Your task to perform on an android device: Open sound settings Image 0: 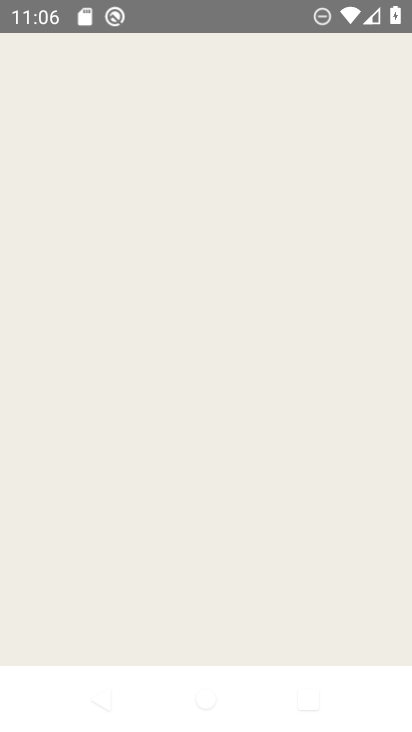
Step 0: press home button
Your task to perform on an android device: Open sound settings Image 1: 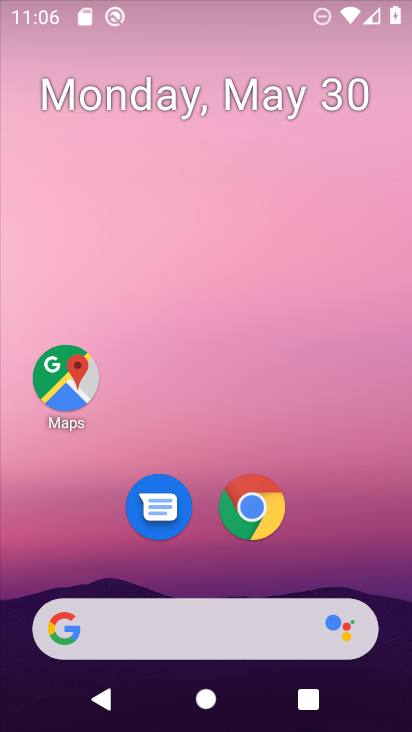
Step 1: drag from (387, 622) to (276, 72)
Your task to perform on an android device: Open sound settings Image 2: 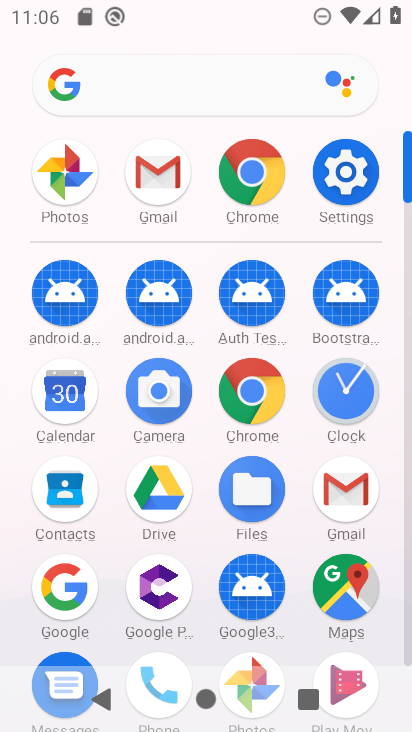
Step 2: click (364, 175)
Your task to perform on an android device: Open sound settings Image 3: 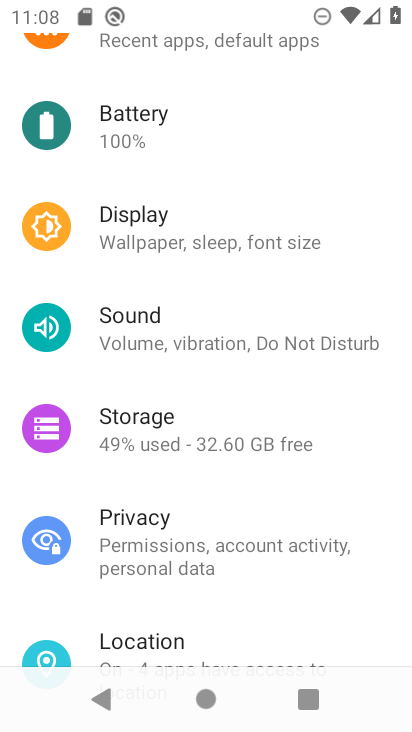
Step 3: click (135, 339)
Your task to perform on an android device: Open sound settings Image 4: 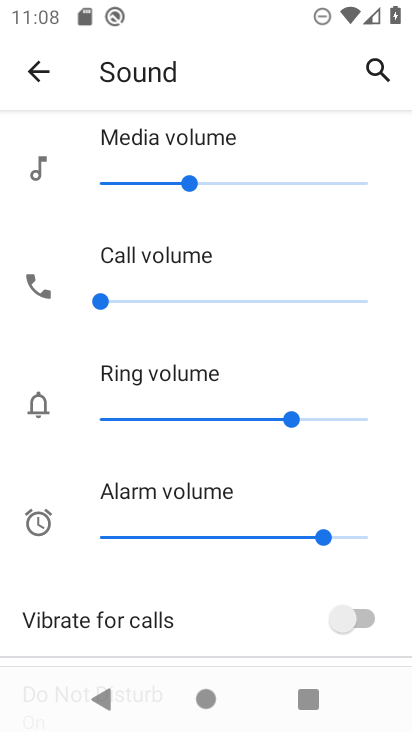
Step 4: task complete